Your task to perform on an android device: turn pop-ups on in chrome Image 0: 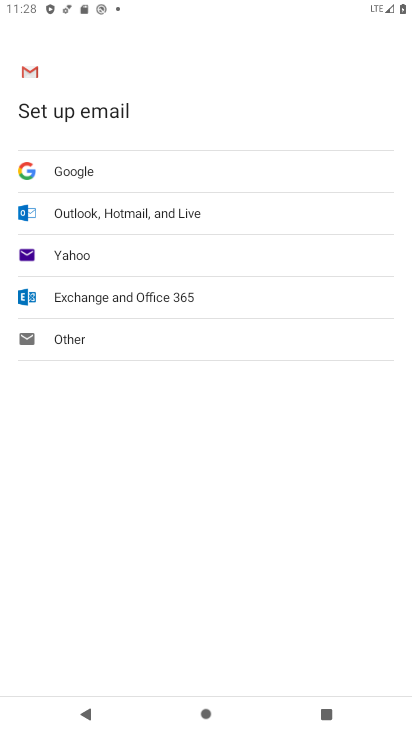
Step 0: press home button
Your task to perform on an android device: turn pop-ups on in chrome Image 1: 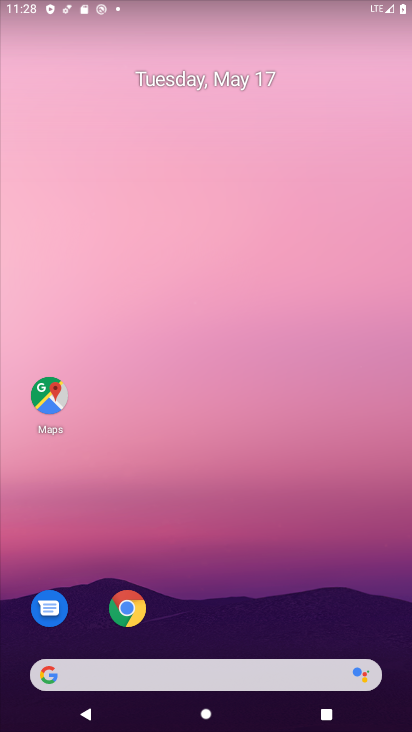
Step 1: click (134, 597)
Your task to perform on an android device: turn pop-ups on in chrome Image 2: 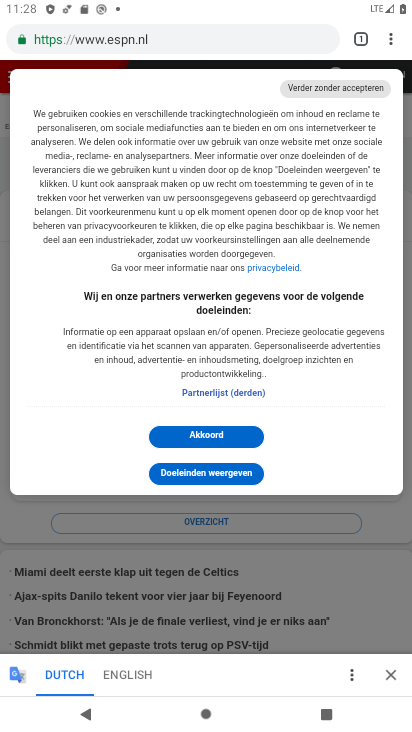
Step 2: click (396, 42)
Your task to perform on an android device: turn pop-ups on in chrome Image 3: 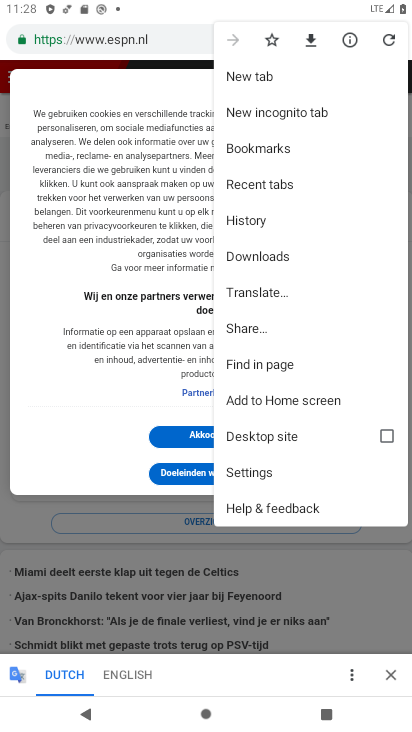
Step 3: click (270, 471)
Your task to perform on an android device: turn pop-ups on in chrome Image 4: 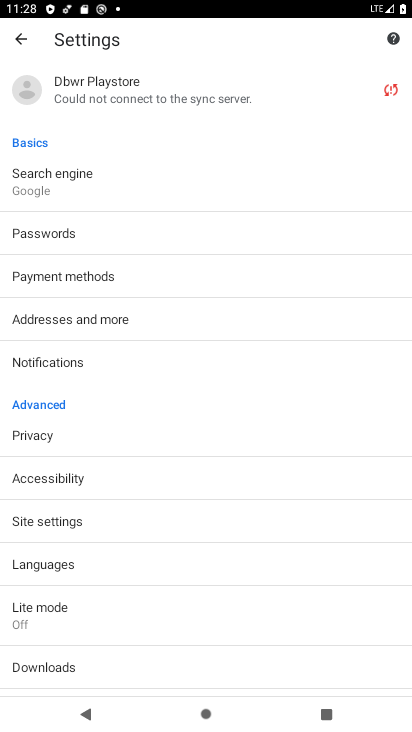
Step 4: click (81, 525)
Your task to perform on an android device: turn pop-ups on in chrome Image 5: 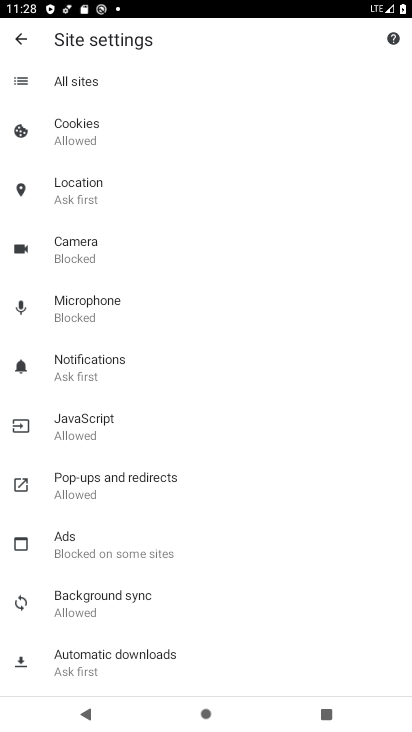
Step 5: click (125, 480)
Your task to perform on an android device: turn pop-ups on in chrome Image 6: 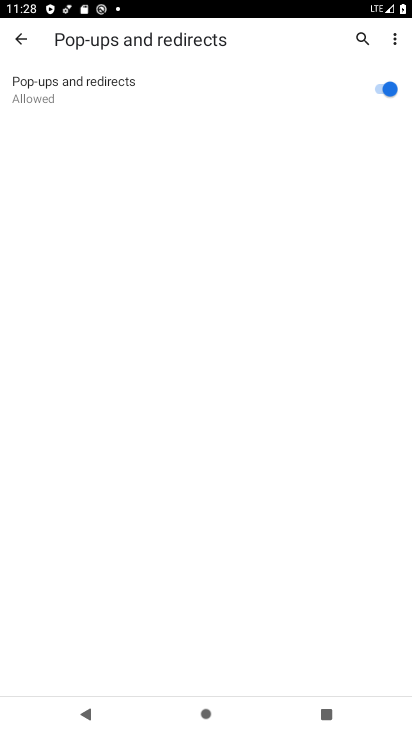
Step 6: task complete